Your task to perform on an android device: Go to CNN.com Image 0: 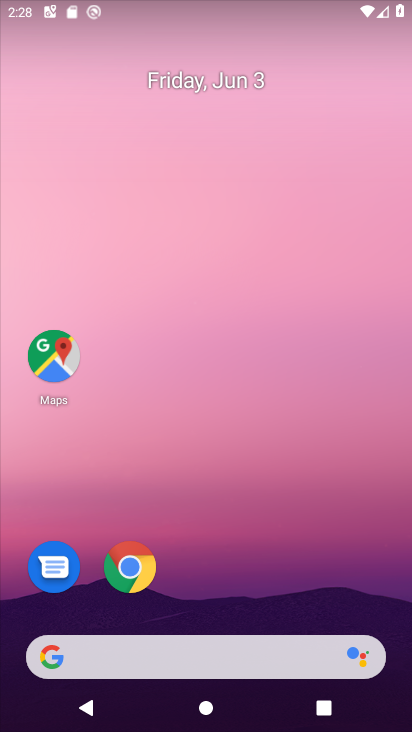
Step 0: drag from (218, 568) to (210, 192)
Your task to perform on an android device: Go to CNN.com Image 1: 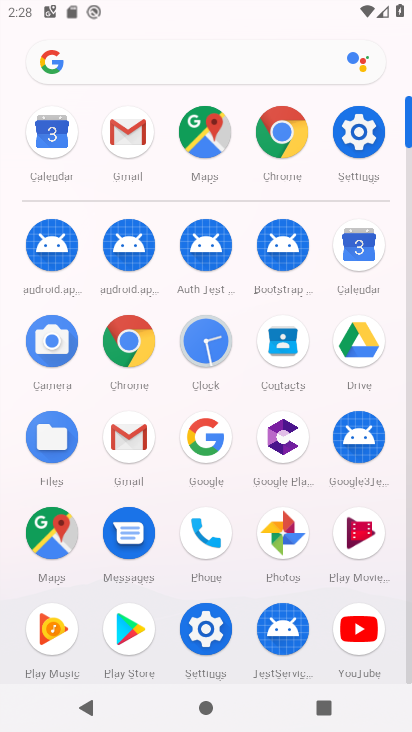
Step 1: click (290, 146)
Your task to perform on an android device: Go to CNN.com Image 2: 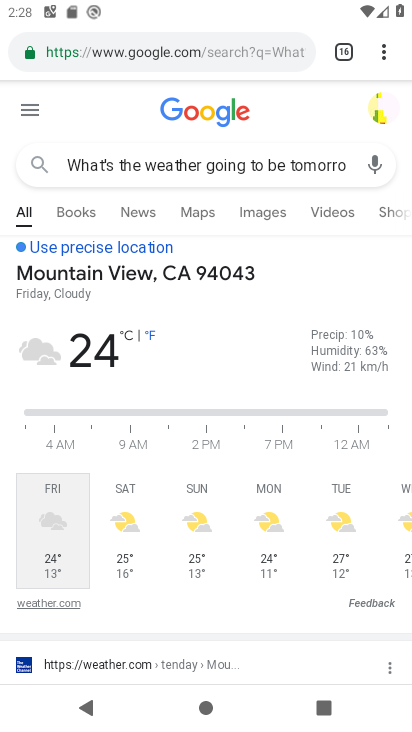
Step 2: click (282, 126)
Your task to perform on an android device: Go to CNN.com Image 3: 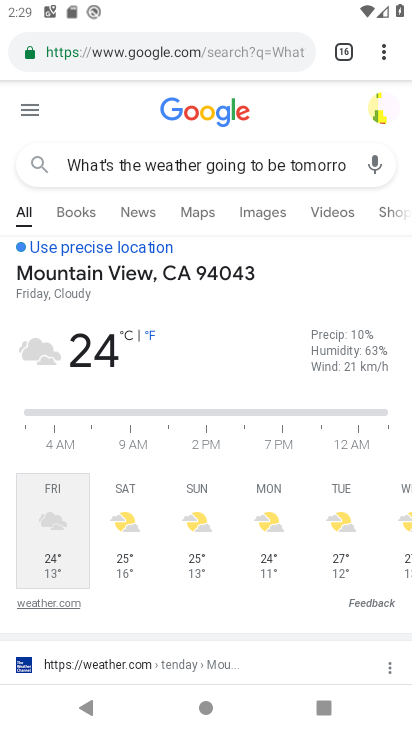
Step 3: click (379, 42)
Your task to perform on an android device: Go to CNN.com Image 4: 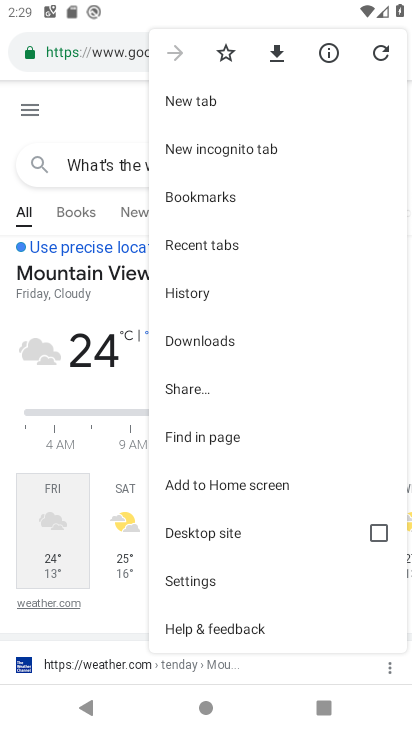
Step 4: click (222, 108)
Your task to perform on an android device: Go to CNN.com Image 5: 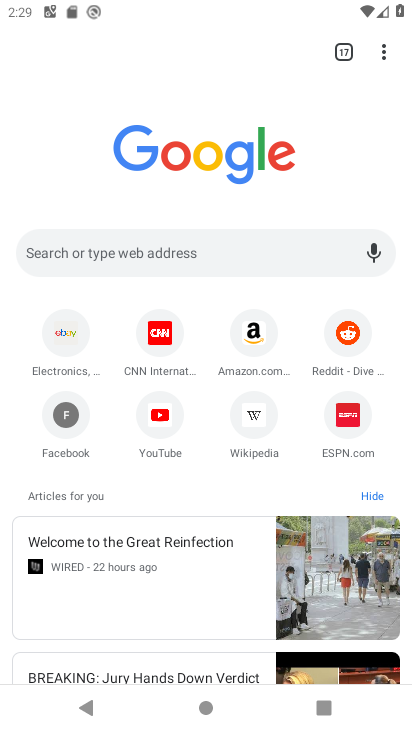
Step 5: click (157, 324)
Your task to perform on an android device: Go to CNN.com Image 6: 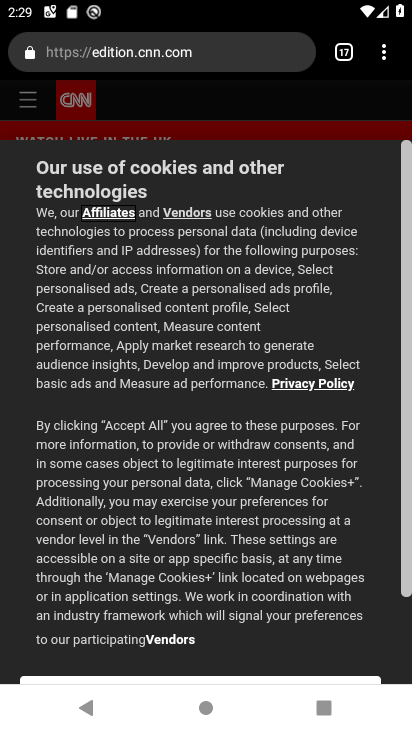
Step 6: task complete